Your task to perform on an android device: toggle notification dots Image 0: 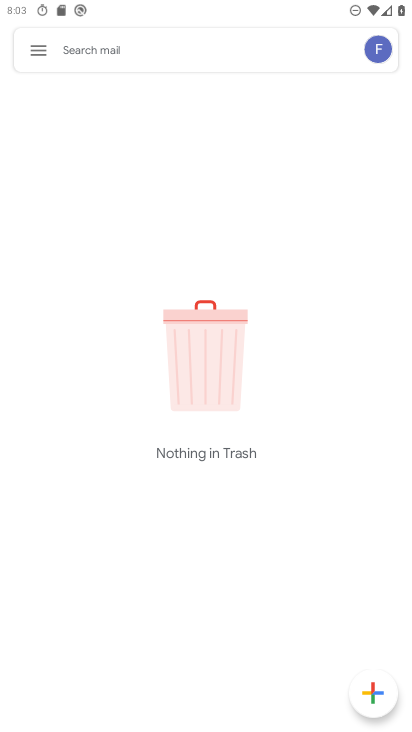
Step 0: press home button
Your task to perform on an android device: toggle notification dots Image 1: 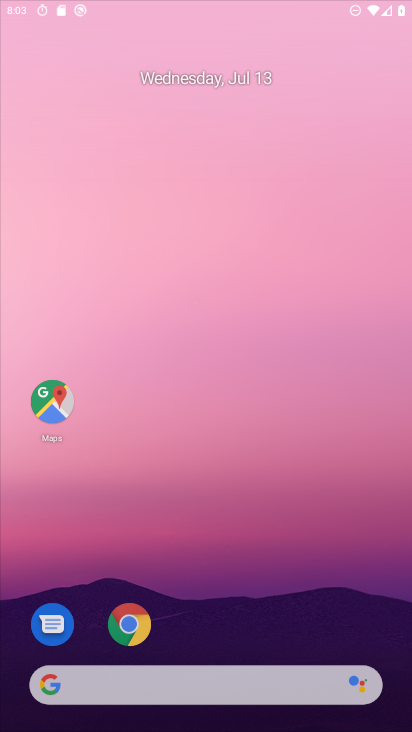
Step 1: drag from (360, 691) to (183, 4)
Your task to perform on an android device: toggle notification dots Image 2: 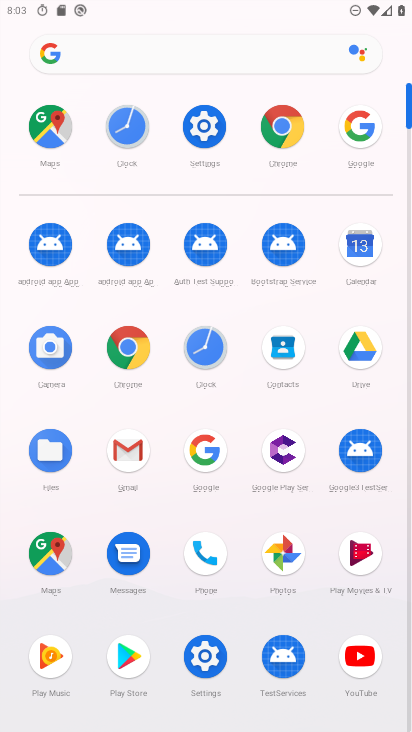
Step 2: click (202, 127)
Your task to perform on an android device: toggle notification dots Image 3: 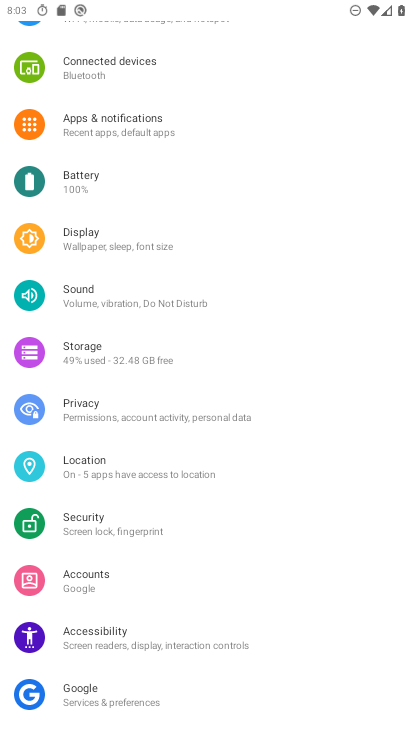
Step 3: click (147, 139)
Your task to perform on an android device: toggle notification dots Image 4: 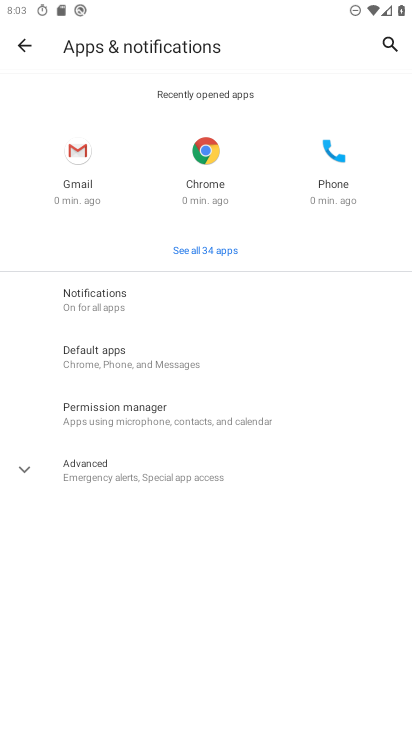
Step 4: click (111, 302)
Your task to perform on an android device: toggle notification dots Image 5: 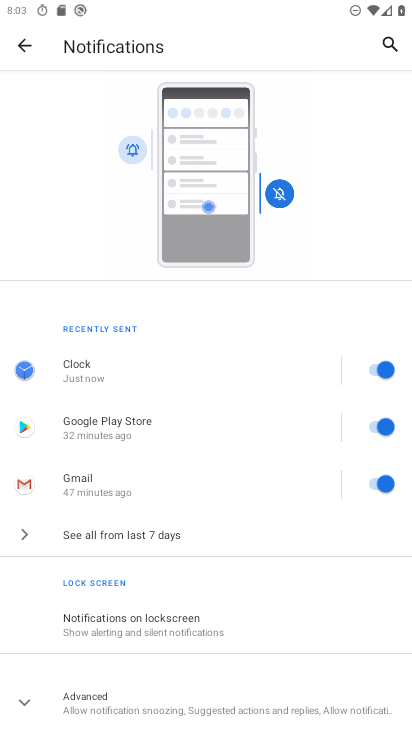
Step 5: drag from (70, 650) to (143, 83)
Your task to perform on an android device: toggle notification dots Image 6: 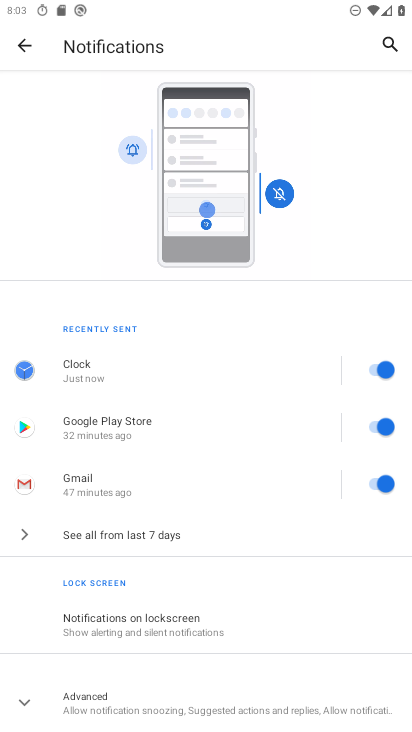
Step 6: click (25, 711)
Your task to perform on an android device: toggle notification dots Image 7: 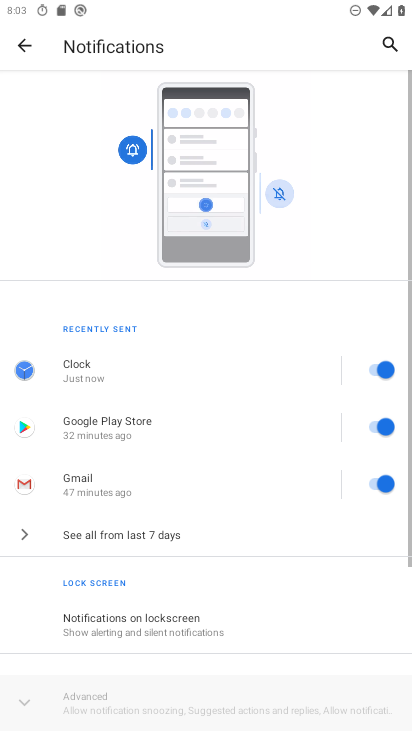
Step 7: drag from (73, 695) to (131, 162)
Your task to perform on an android device: toggle notification dots Image 8: 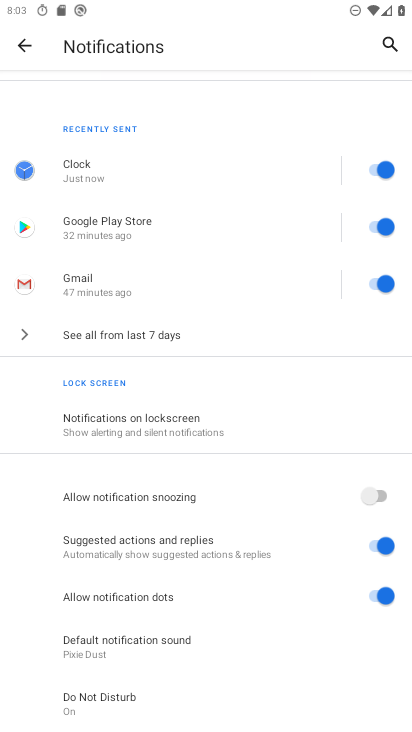
Step 8: click (207, 601)
Your task to perform on an android device: toggle notification dots Image 9: 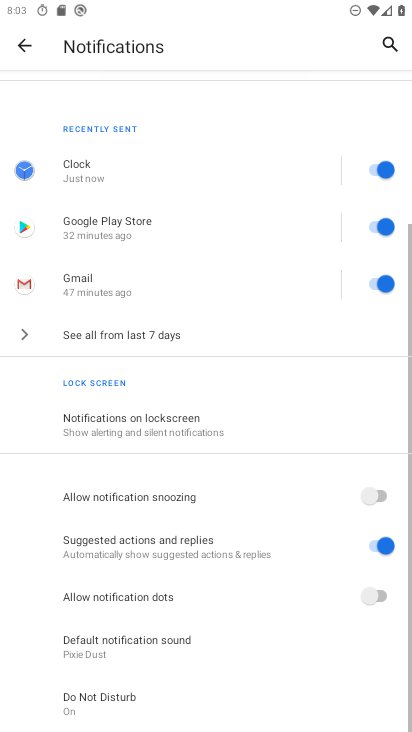
Step 9: task complete